Your task to perform on an android device: show emergency info Image 0: 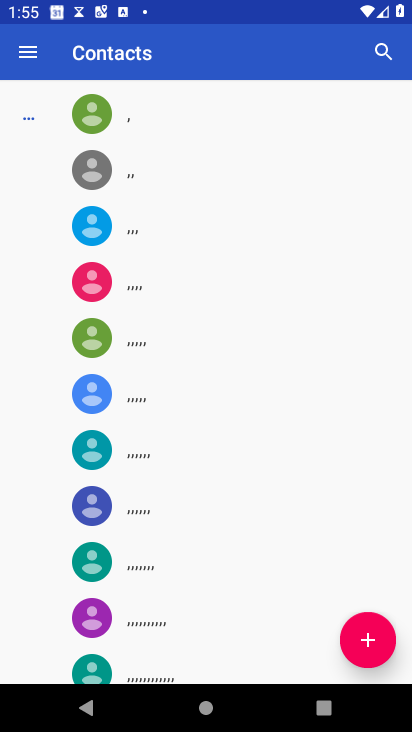
Step 0: press home button
Your task to perform on an android device: show emergency info Image 1: 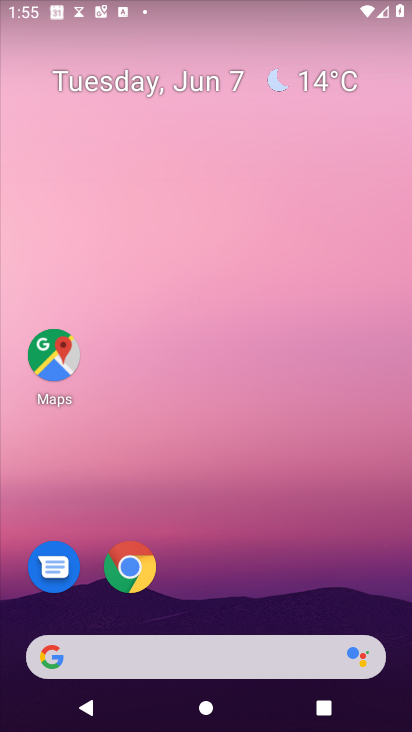
Step 1: drag from (291, 649) to (327, 49)
Your task to perform on an android device: show emergency info Image 2: 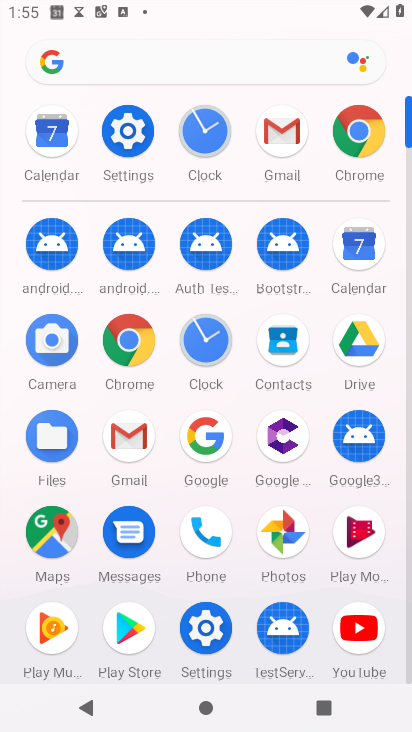
Step 2: click (126, 122)
Your task to perform on an android device: show emergency info Image 3: 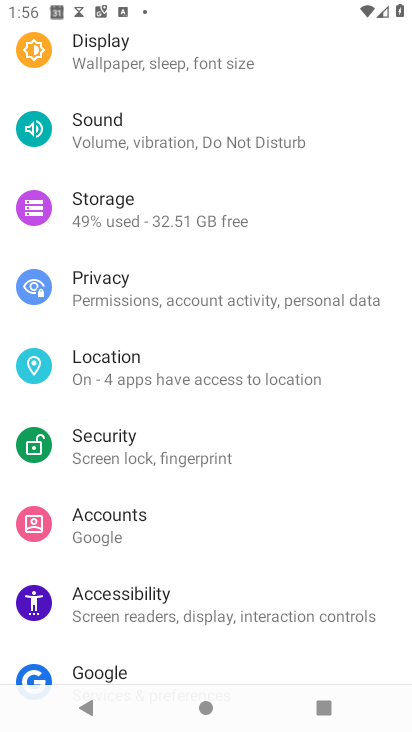
Step 3: drag from (192, 654) to (221, 170)
Your task to perform on an android device: show emergency info Image 4: 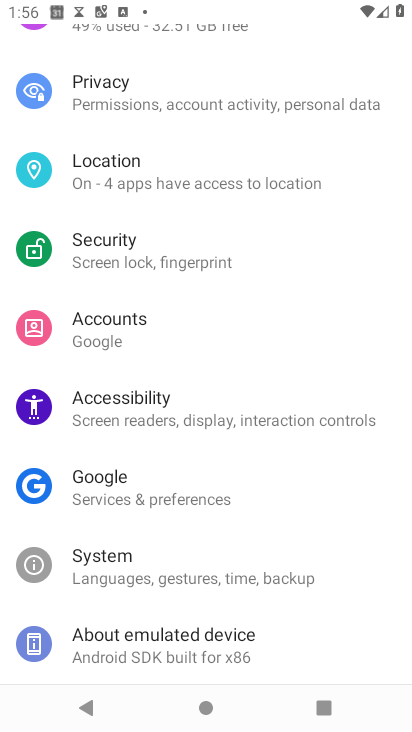
Step 4: click (154, 643)
Your task to perform on an android device: show emergency info Image 5: 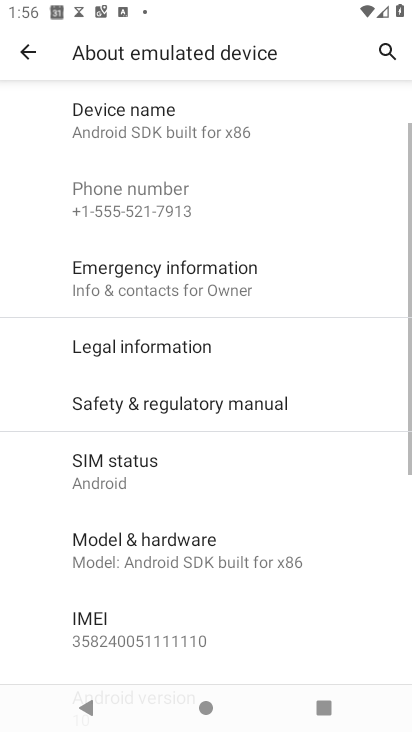
Step 5: click (239, 296)
Your task to perform on an android device: show emergency info Image 6: 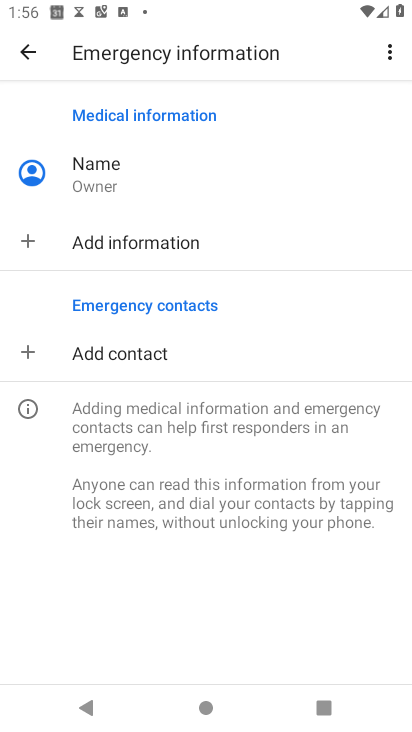
Step 6: task complete